Your task to perform on an android device: check the backup settings in the google photos Image 0: 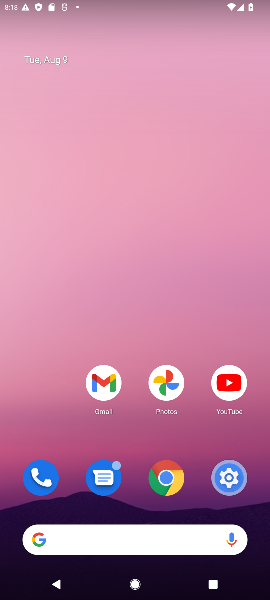
Step 0: click (171, 386)
Your task to perform on an android device: check the backup settings in the google photos Image 1: 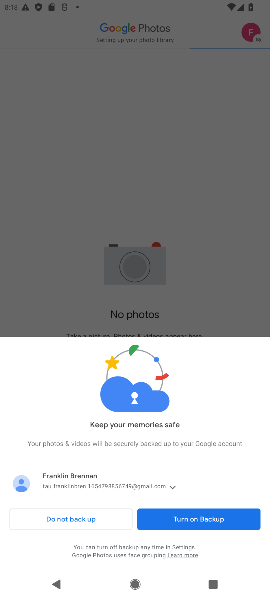
Step 1: click (187, 525)
Your task to perform on an android device: check the backup settings in the google photos Image 2: 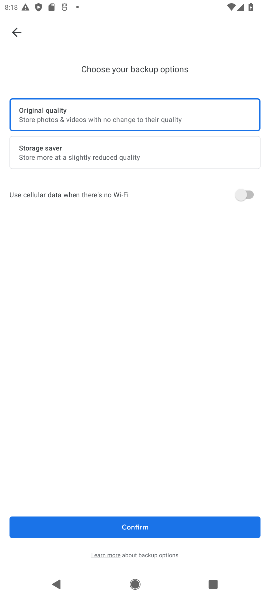
Step 2: click (196, 532)
Your task to perform on an android device: check the backup settings in the google photos Image 3: 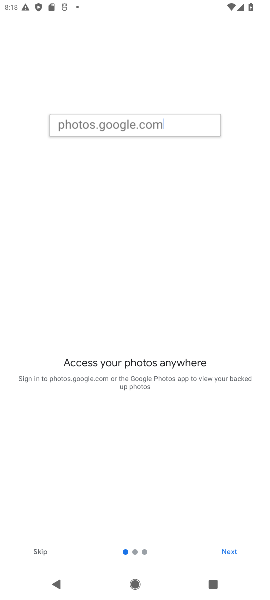
Step 3: click (37, 553)
Your task to perform on an android device: check the backup settings in the google photos Image 4: 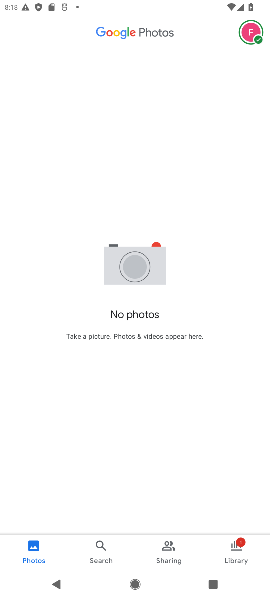
Step 4: click (253, 44)
Your task to perform on an android device: check the backup settings in the google photos Image 5: 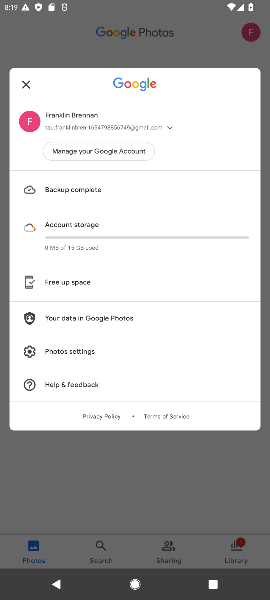
Step 5: click (121, 351)
Your task to perform on an android device: check the backup settings in the google photos Image 6: 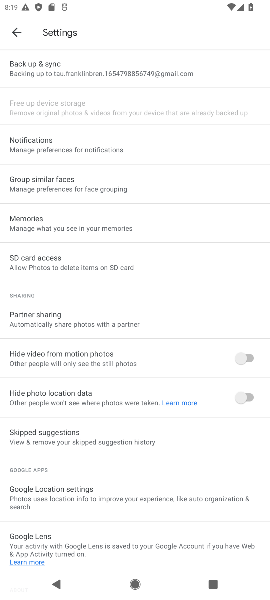
Step 6: click (117, 57)
Your task to perform on an android device: check the backup settings in the google photos Image 7: 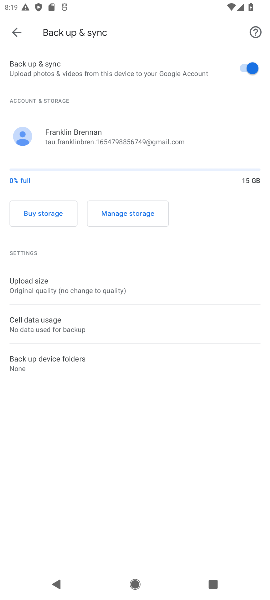
Step 7: task complete